Your task to perform on an android device: change timer sound Image 0: 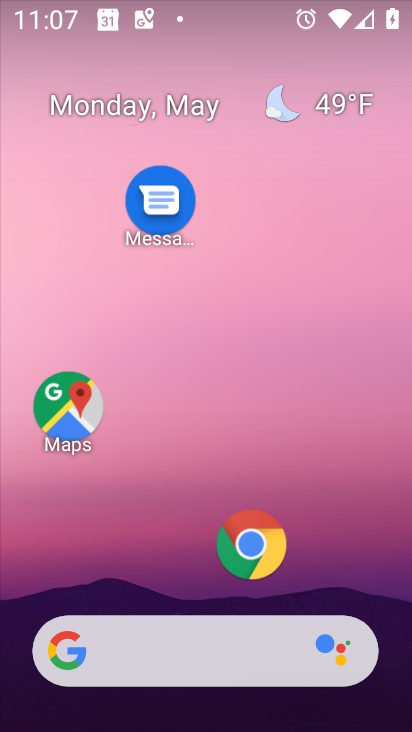
Step 0: drag from (343, 571) to (361, 132)
Your task to perform on an android device: change timer sound Image 1: 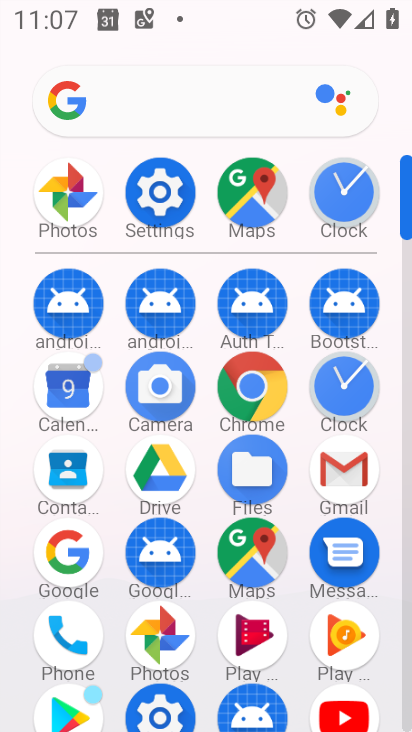
Step 1: click (326, 375)
Your task to perform on an android device: change timer sound Image 2: 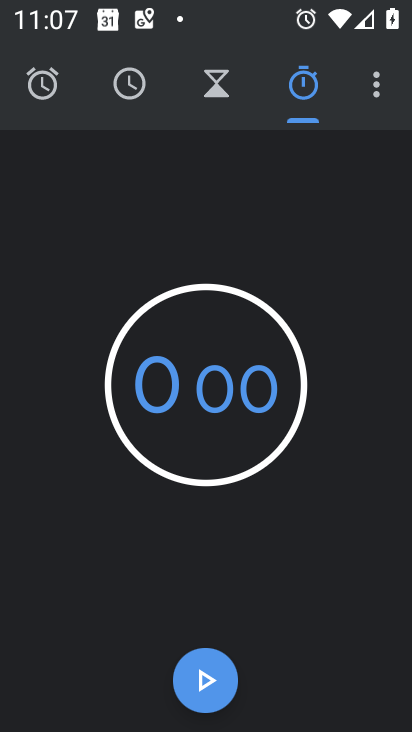
Step 2: click (376, 82)
Your task to perform on an android device: change timer sound Image 3: 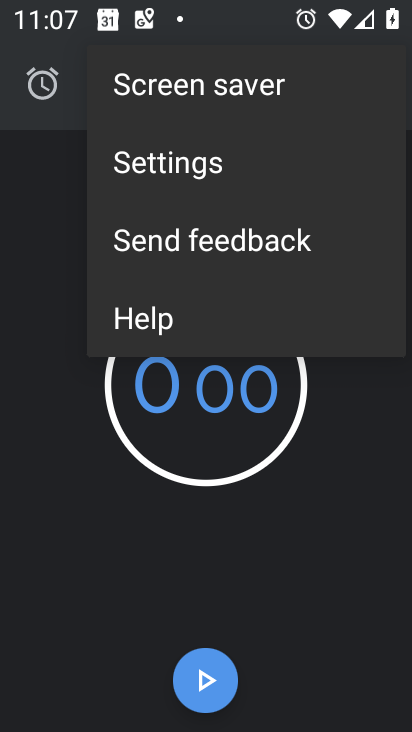
Step 3: click (322, 162)
Your task to perform on an android device: change timer sound Image 4: 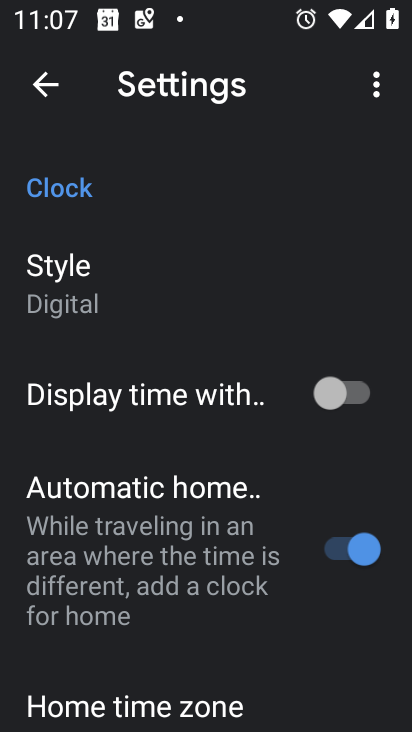
Step 4: drag from (214, 591) to (275, 262)
Your task to perform on an android device: change timer sound Image 5: 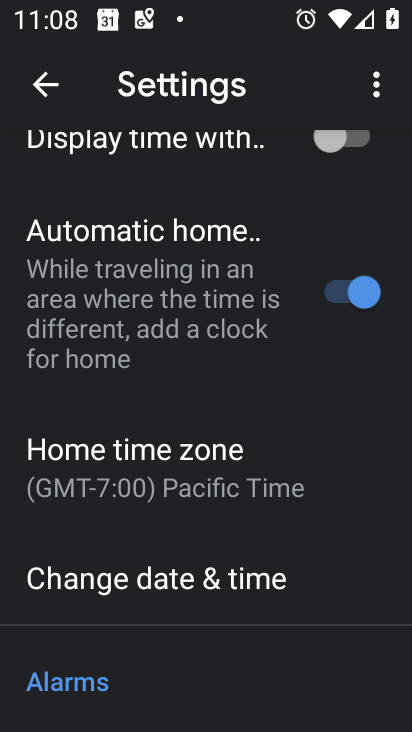
Step 5: drag from (226, 673) to (241, 455)
Your task to perform on an android device: change timer sound Image 6: 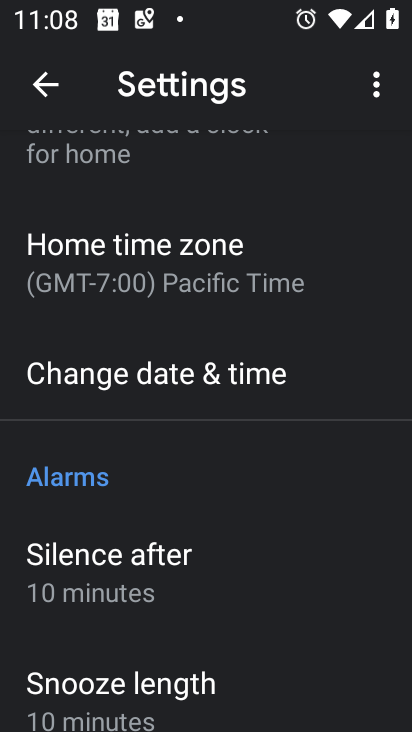
Step 6: drag from (197, 582) to (214, 394)
Your task to perform on an android device: change timer sound Image 7: 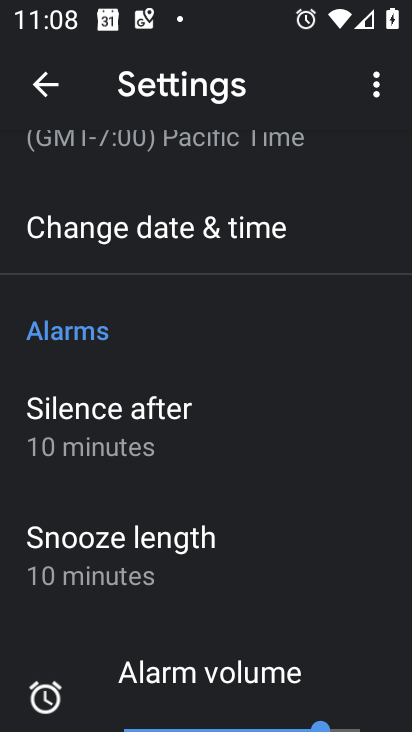
Step 7: drag from (180, 550) to (230, 404)
Your task to perform on an android device: change timer sound Image 8: 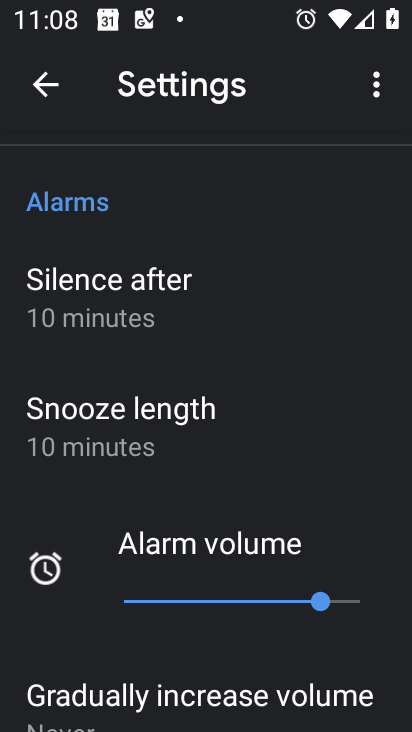
Step 8: drag from (193, 637) to (248, 422)
Your task to perform on an android device: change timer sound Image 9: 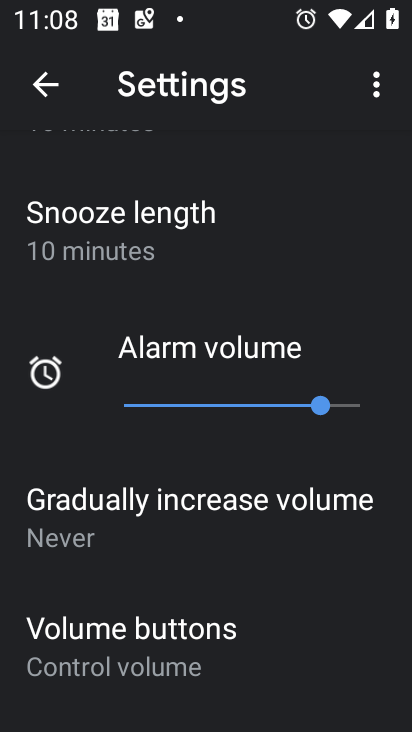
Step 9: drag from (222, 603) to (250, 435)
Your task to perform on an android device: change timer sound Image 10: 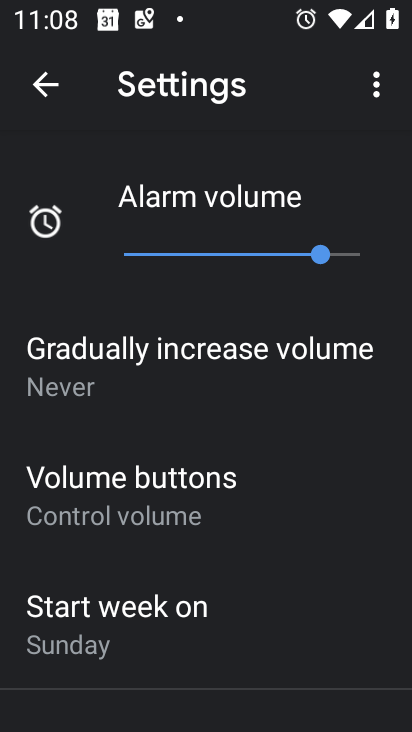
Step 10: drag from (237, 572) to (262, 374)
Your task to perform on an android device: change timer sound Image 11: 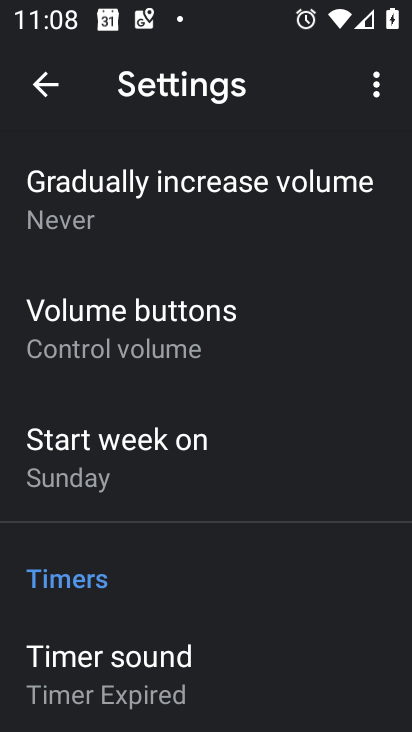
Step 11: drag from (208, 552) to (247, 372)
Your task to perform on an android device: change timer sound Image 12: 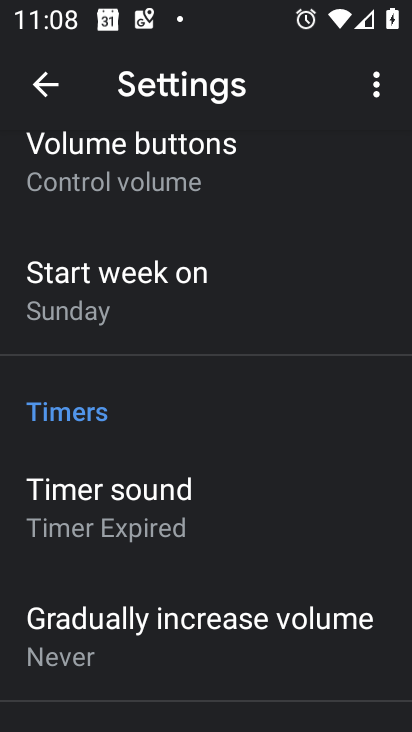
Step 12: drag from (173, 572) to (234, 375)
Your task to perform on an android device: change timer sound Image 13: 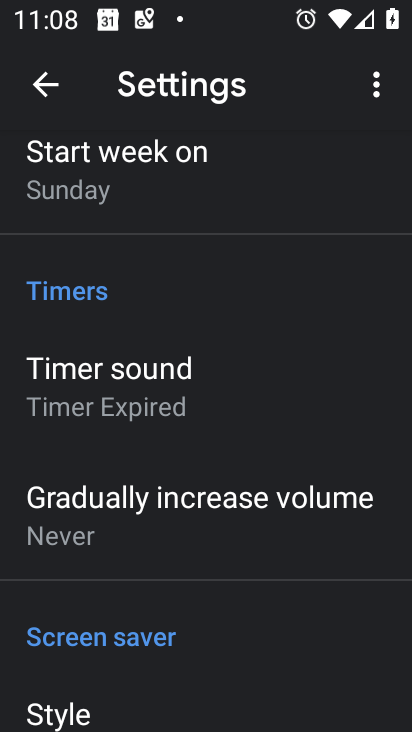
Step 13: click (231, 381)
Your task to perform on an android device: change timer sound Image 14: 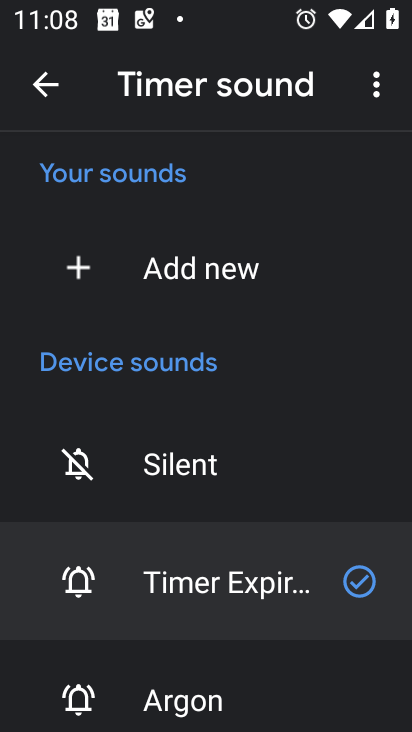
Step 14: click (162, 670)
Your task to perform on an android device: change timer sound Image 15: 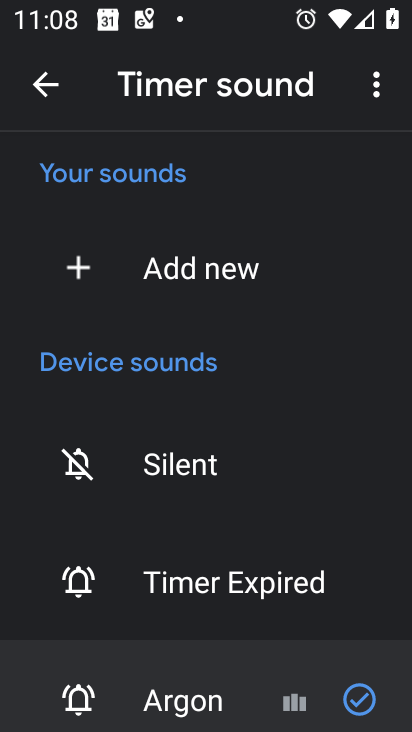
Step 15: task complete